Your task to perform on an android device: What's the weather today? Image 0: 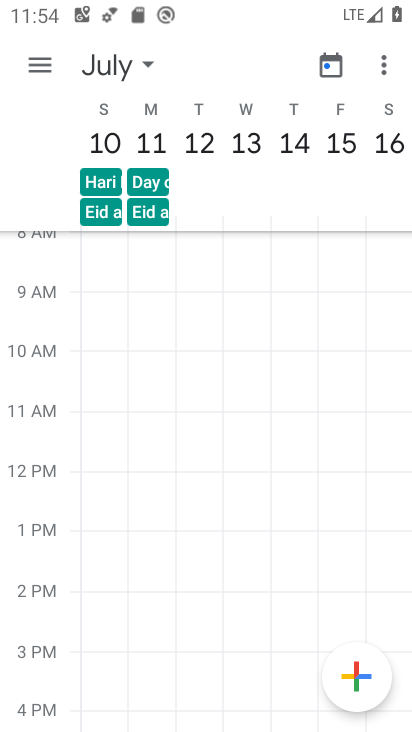
Step 0: press home button
Your task to perform on an android device: What's the weather today? Image 1: 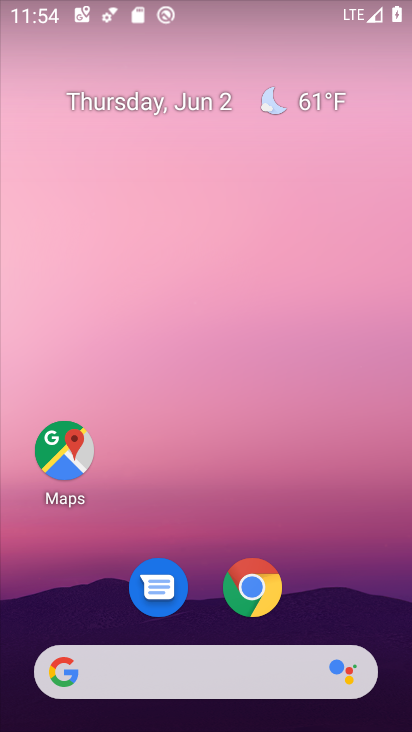
Step 1: click (303, 93)
Your task to perform on an android device: What's the weather today? Image 2: 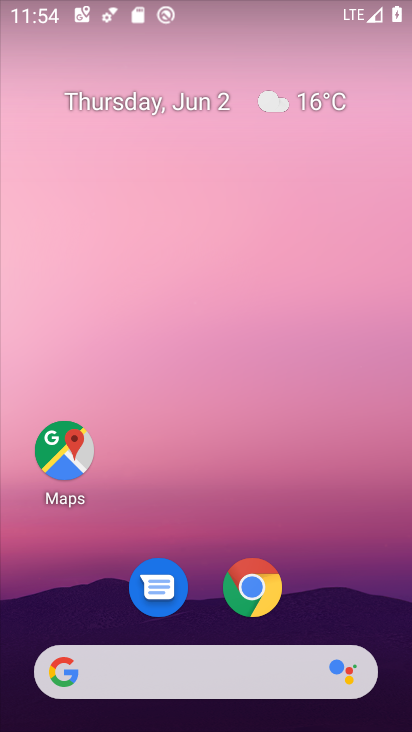
Step 2: click (306, 96)
Your task to perform on an android device: What's the weather today? Image 3: 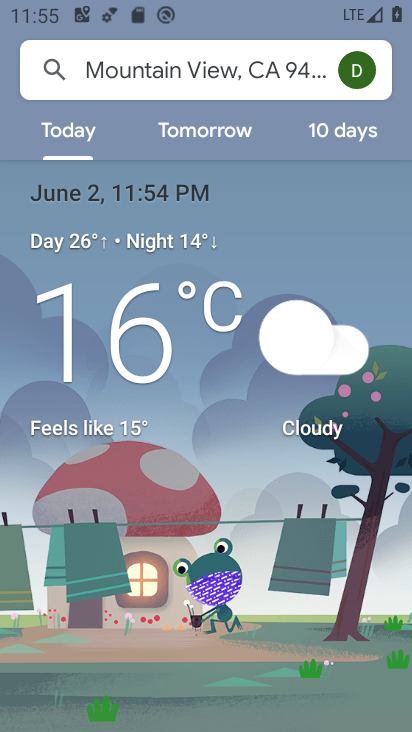
Step 3: task complete